Your task to perform on an android device: Open Maps and search for coffee Image 0: 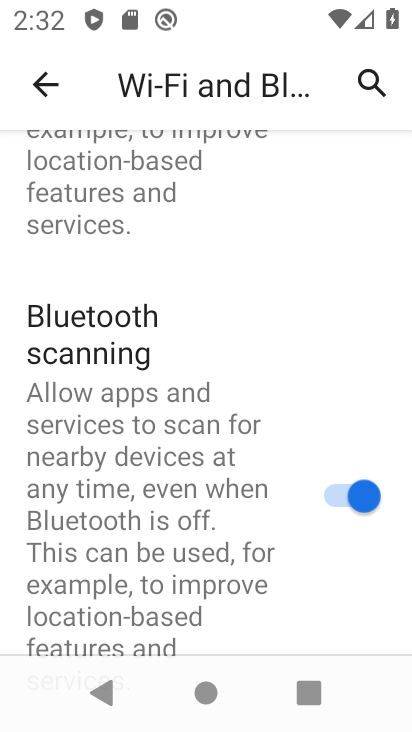
Step 0: press home button
Your task to perform on an android device: Open Maps and search for coffee Image 1: 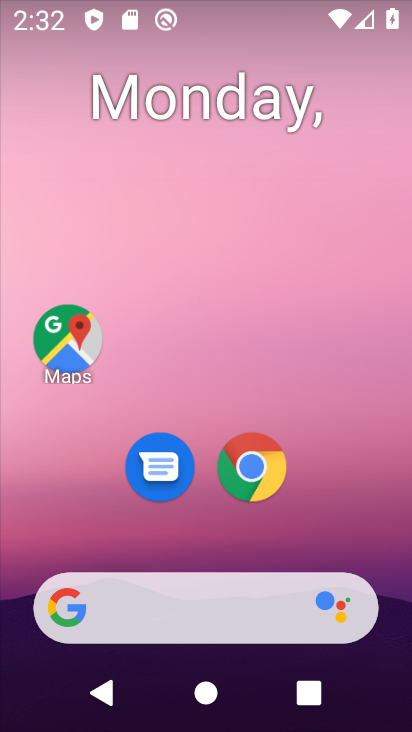
Step 1: drag from (385, 543) to (303, 100)
Your task to perform on an android device: Open Maps and search for coffee Image 2: 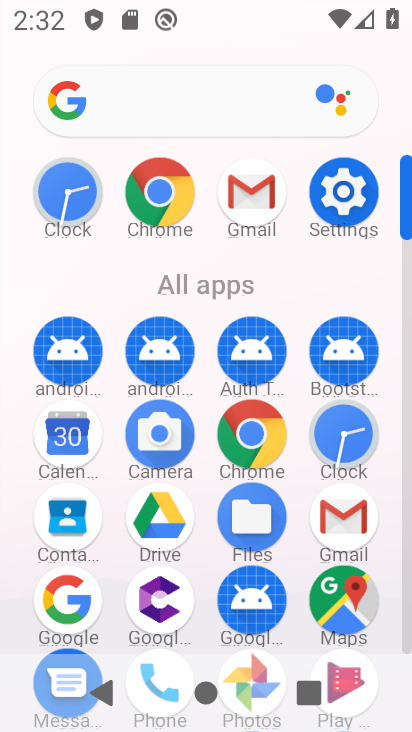
Step 2: click (345, 606)
Your task to perform on an android device: Open Maps and search for coffee Image 3: 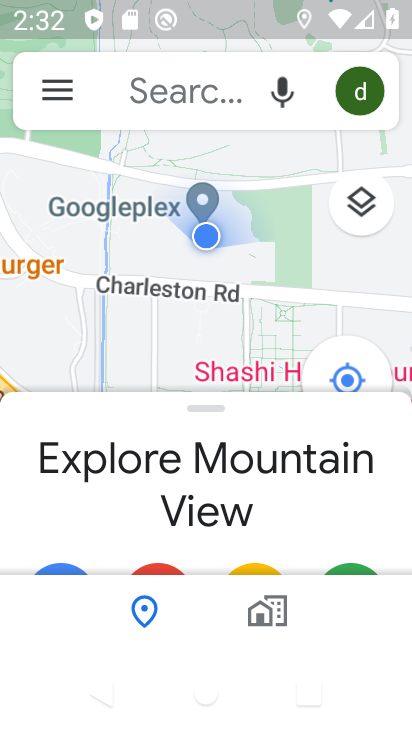
Step 3: click (187, 97)
Your task to perform on an android device: Open Maps and search for coffee Image 4: 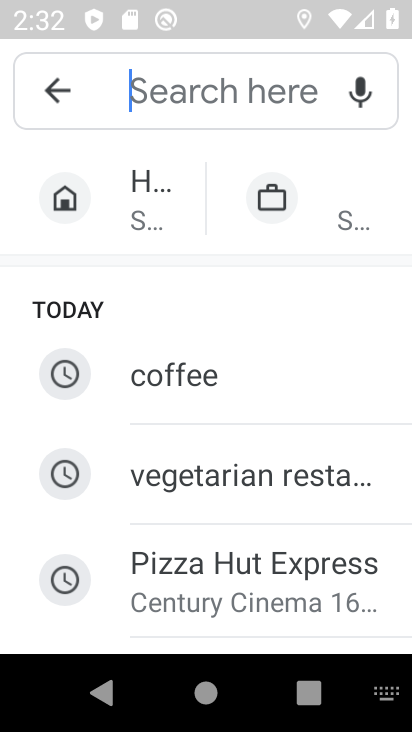
Step 4: click (194, 390)
Your task to perform on an android device: Open Maps and search for coffee Image 5: 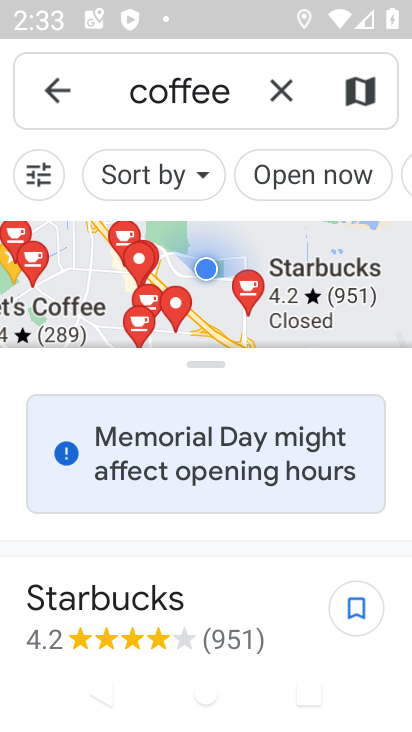
Step 5: task complete